Your task to perform on an android device: Open notification settings Image 0: 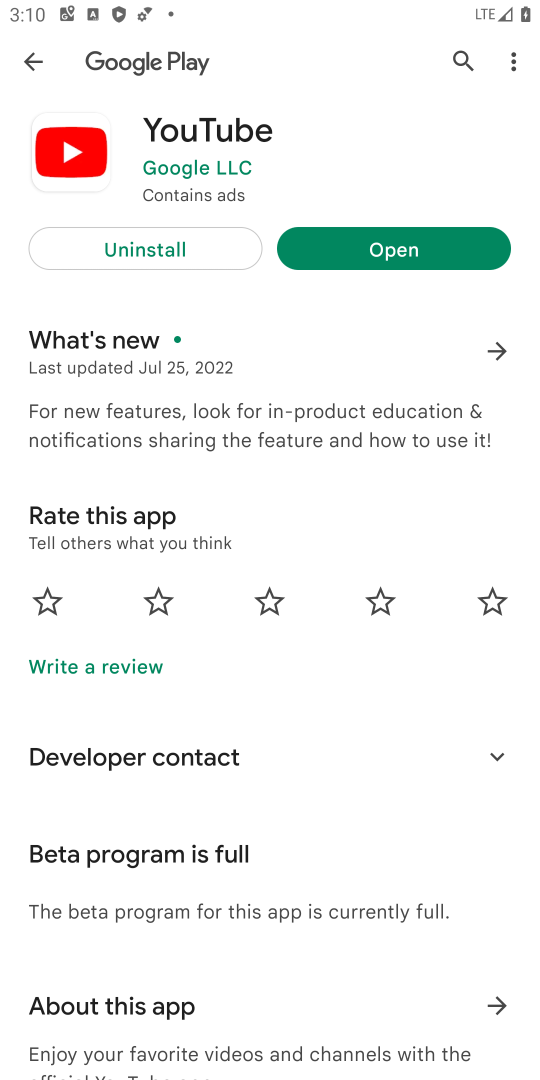
Step 0: press home button
Your task to perform on an android device: Open notification settings Image 1: 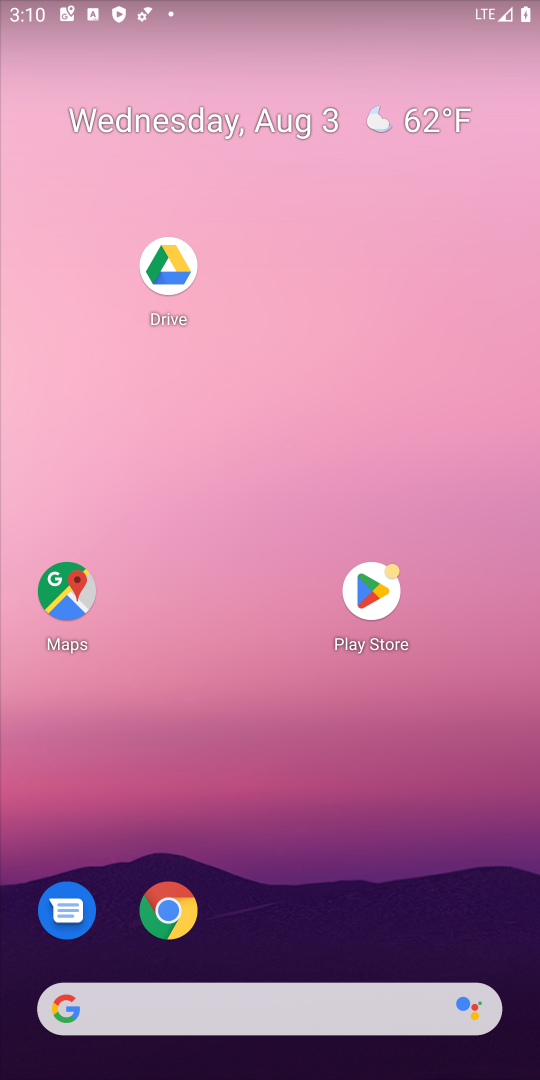
Step 1: drag from (362, 796) to (382, 60)
Your task to perform on an android device: Open notification settings Image 2: 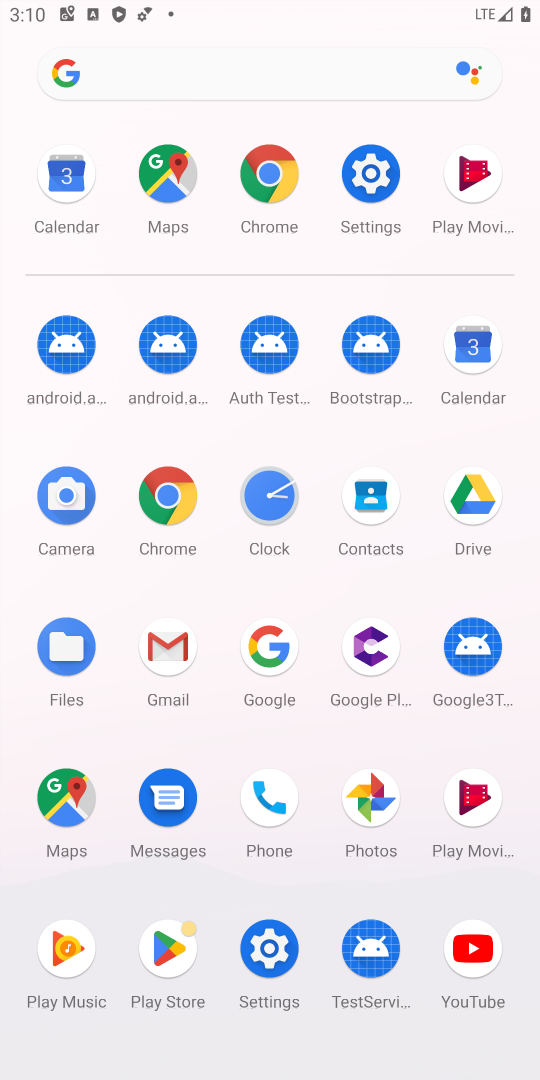
Step 2: click (375, 171)
Your task to perform on an android device: Open notification settings Image 3: 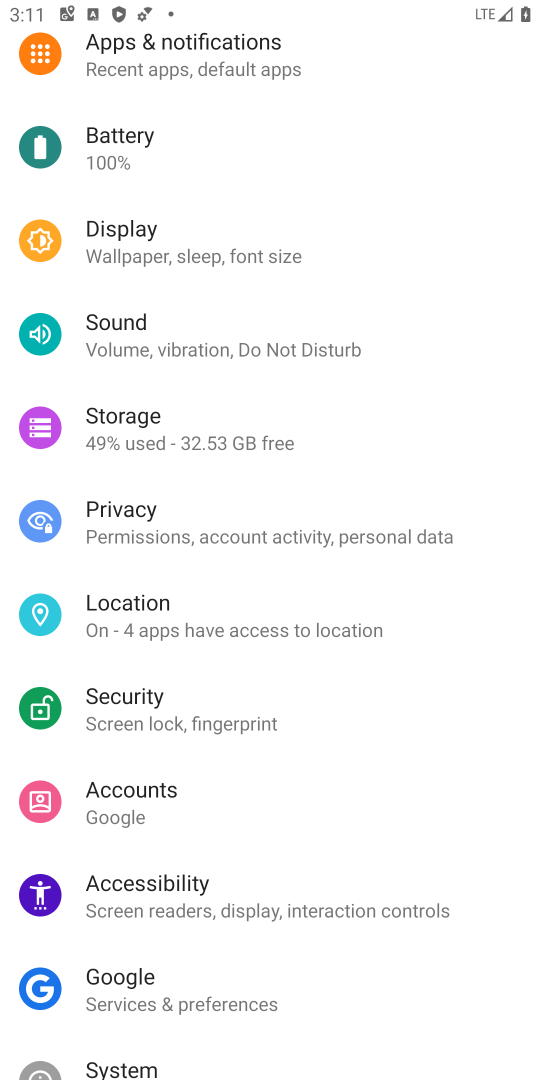
Step 3: click (198, 39)
Your task to perform on an android device: Open notification settings Image 4: 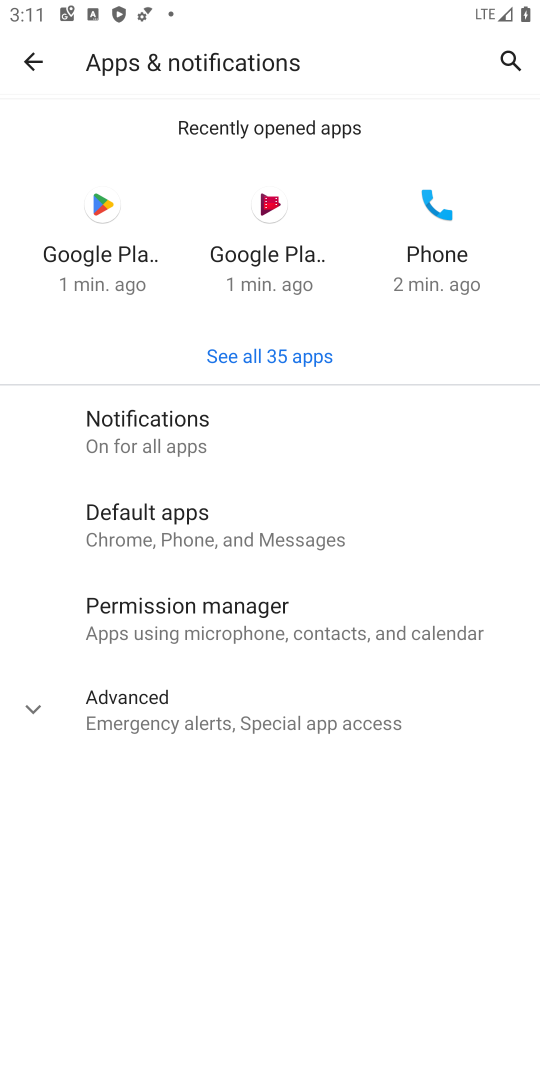
Step 4: click (232, 428)
Your task to perform on an android device: Open notification settings Image 5: 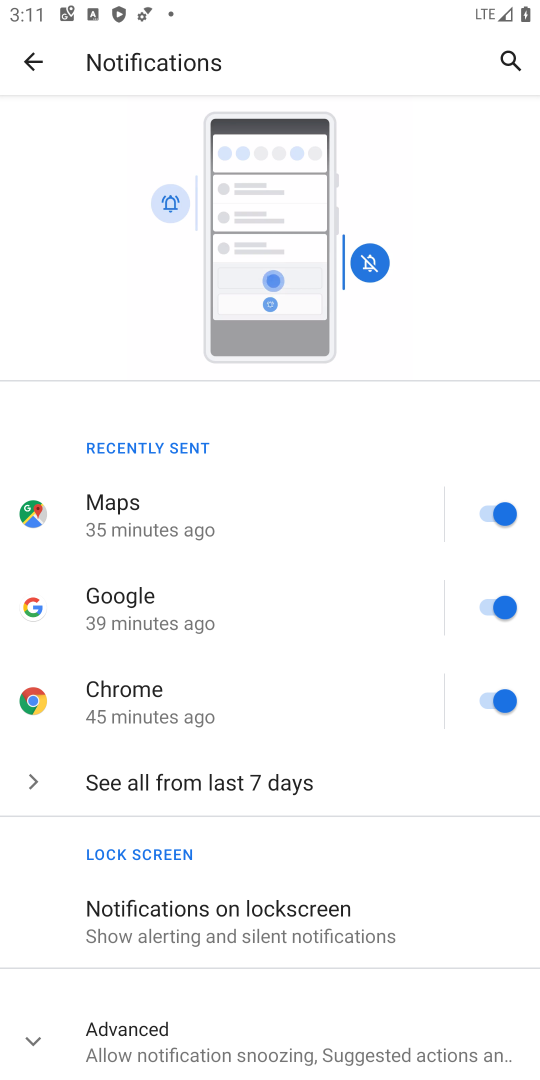
Step 5: task complete